Your task to perform on an android device: open app "PUBG MOBILE" (install if not already installed) Image 0: 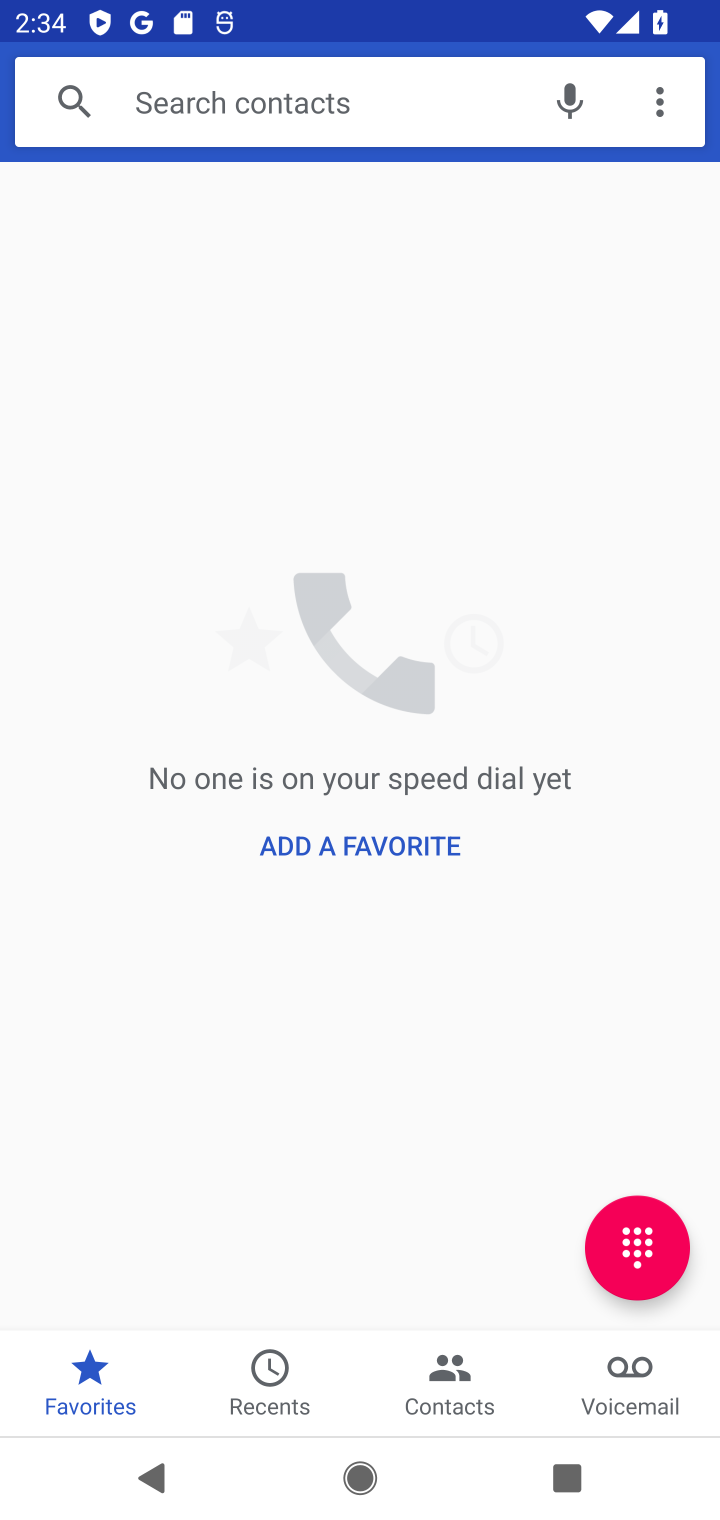
Step 0: press home button
Your task to perform on an android device: open app "PUBG MOBILE" (install if not already installed) Image 1: 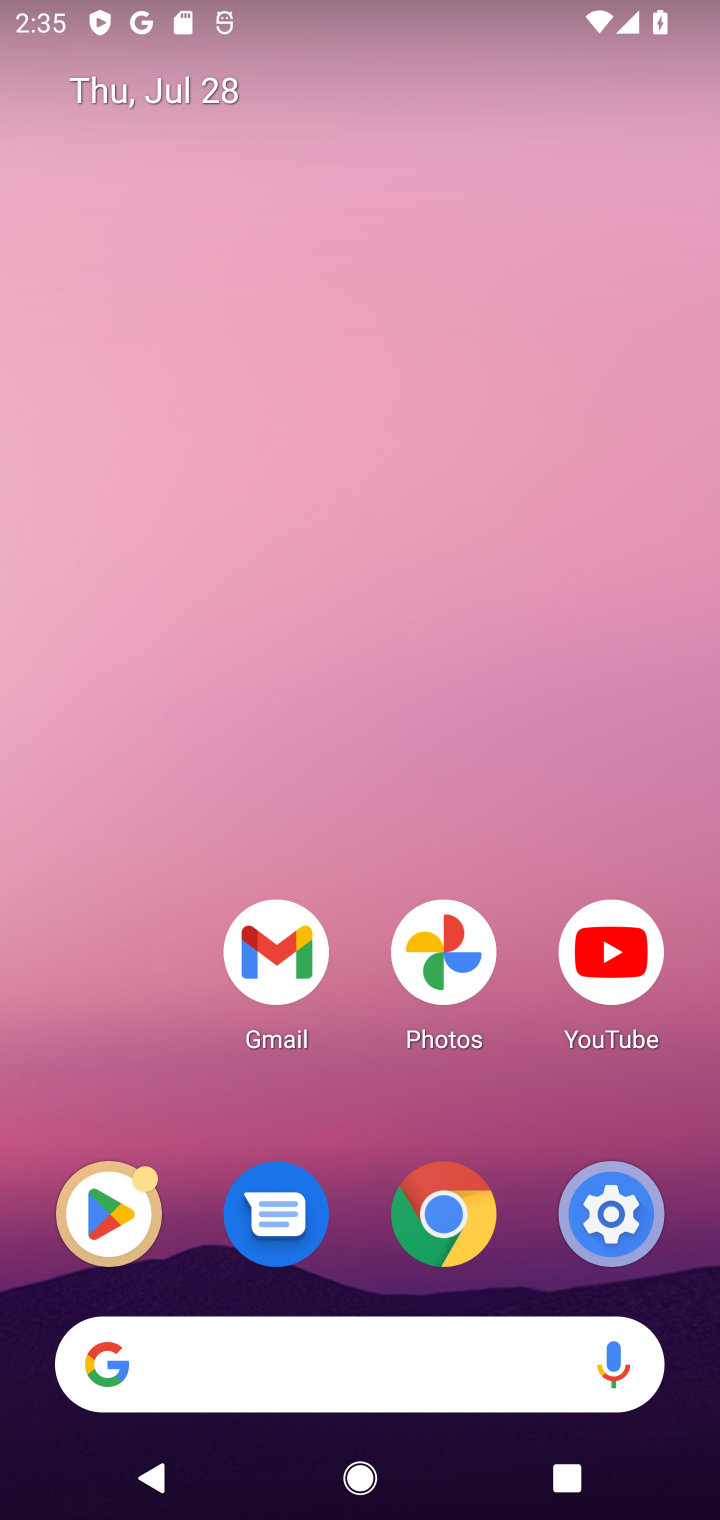
Step 1: click (119, 1190)
Your task to perform on an android device: open app "PUBG MOBILE" (install if not already installed) Image 2: 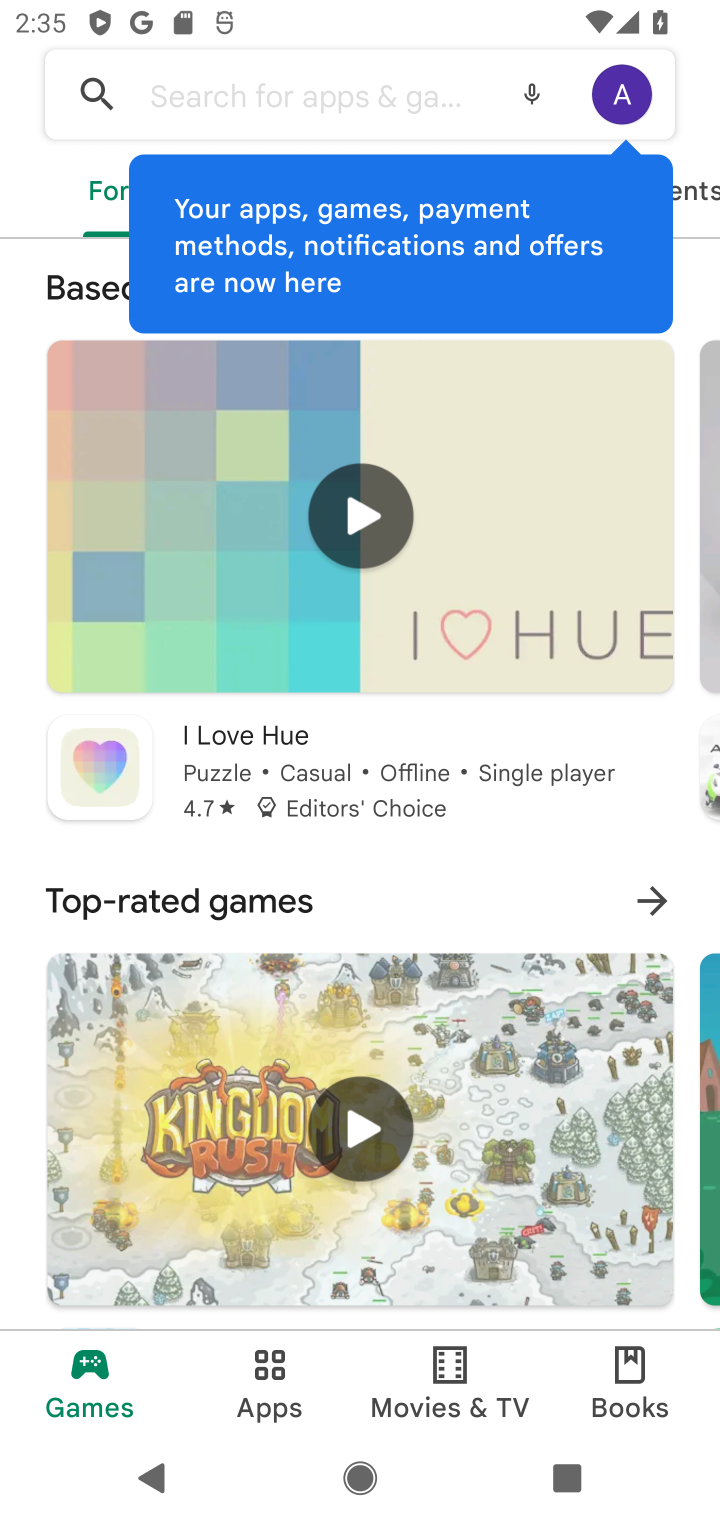
Step 2: click (347, 107)
Your task to perform on an android device: open app "PUBG MOBILE" (install if not already installed) Image 3: 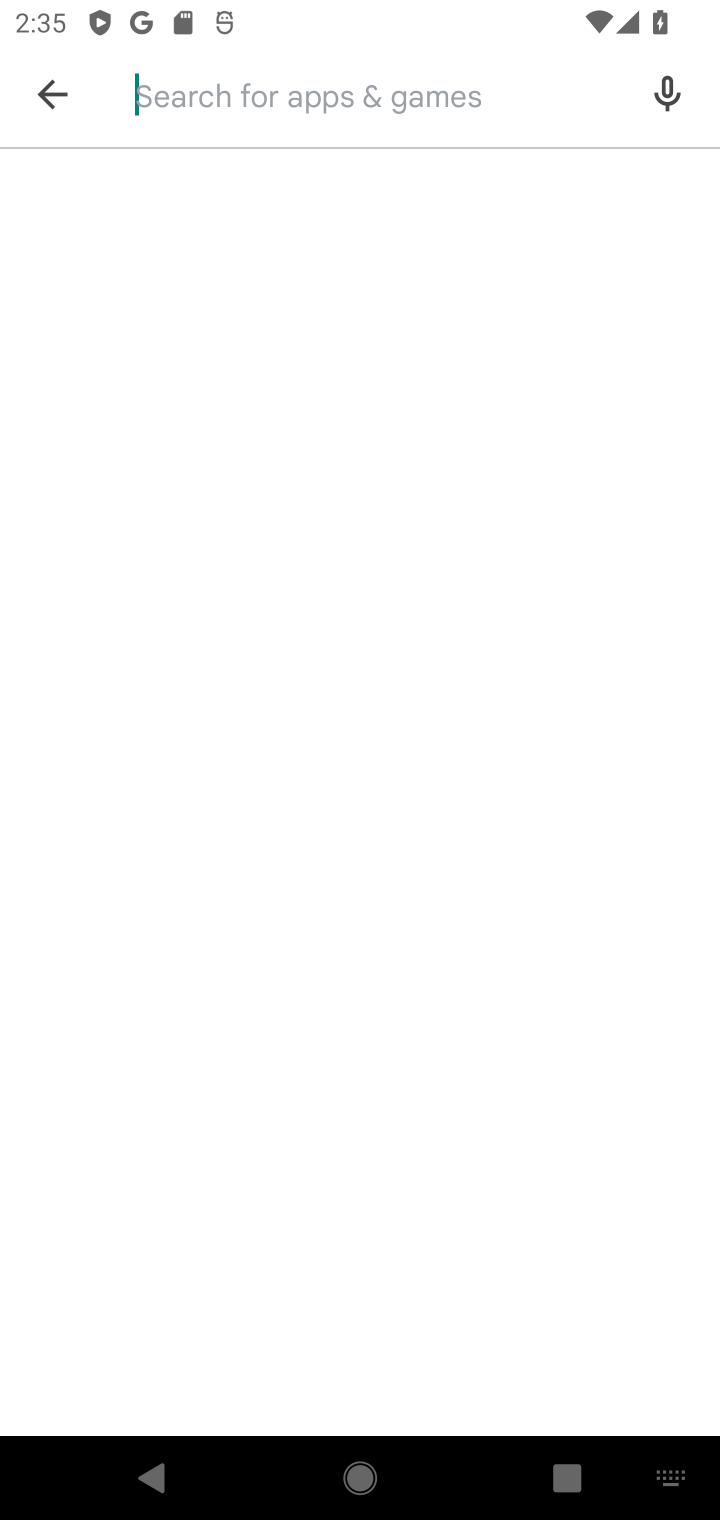
Step 3: type "pubg mobile"
Your task to perform on an android device: open app "PUBG MOBILE" (install if not already installed) Image 4: 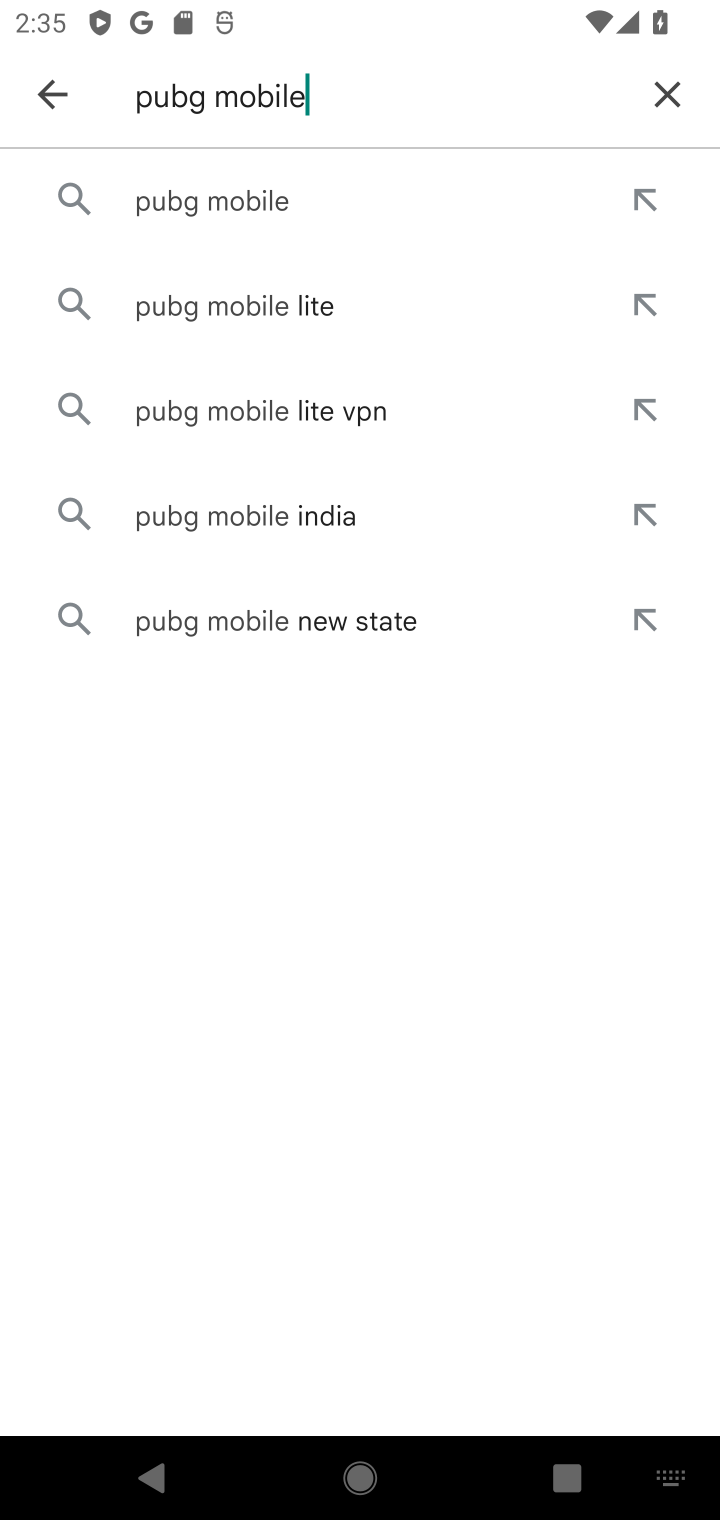
Step 4: click (273, 205)
Your task to perform on an android device: open app "PUBG MOBILE" (install if not already installed) Image 5: 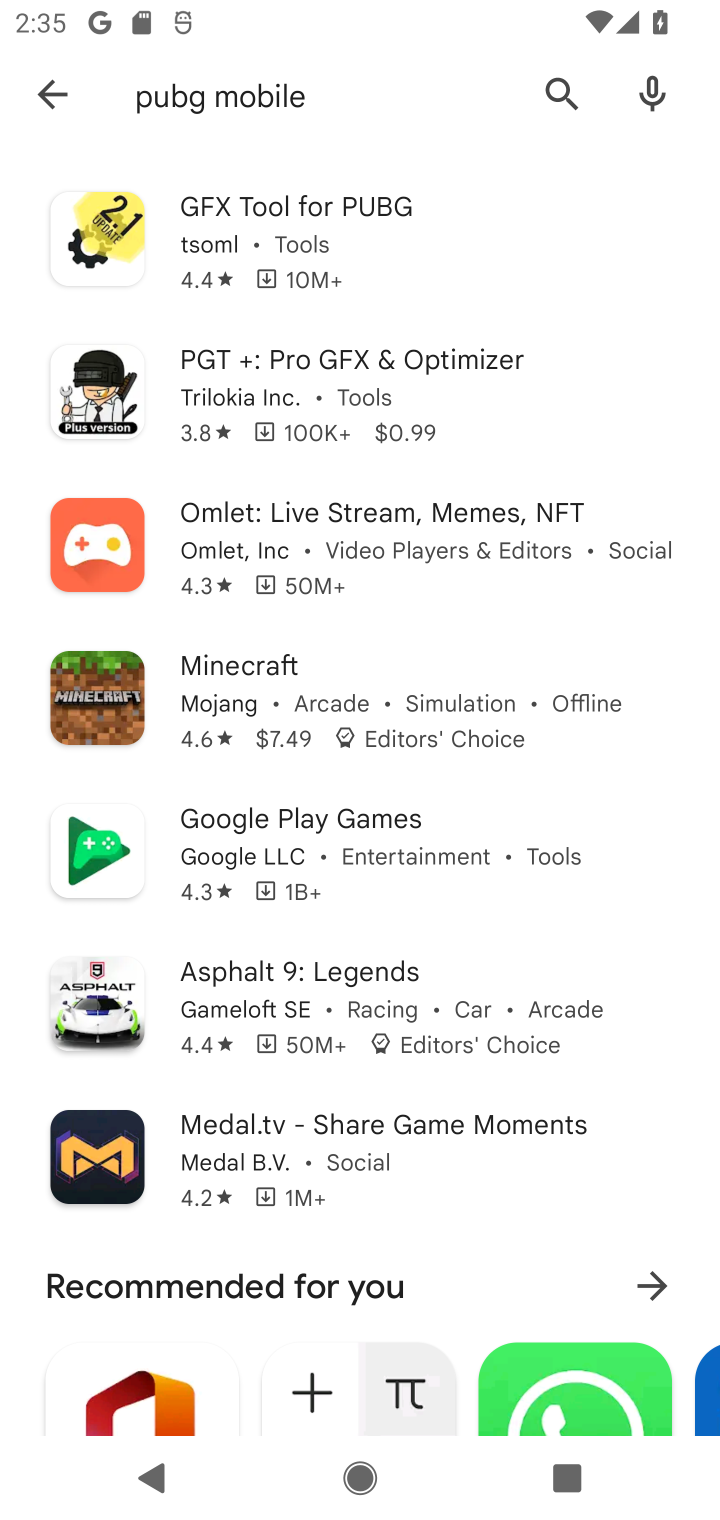
Step 5: drag from (443, 635) to (494, 442)
Your task to perform on an android device: open app "PUBG MOBILE" (install if not already installed) Image 6: 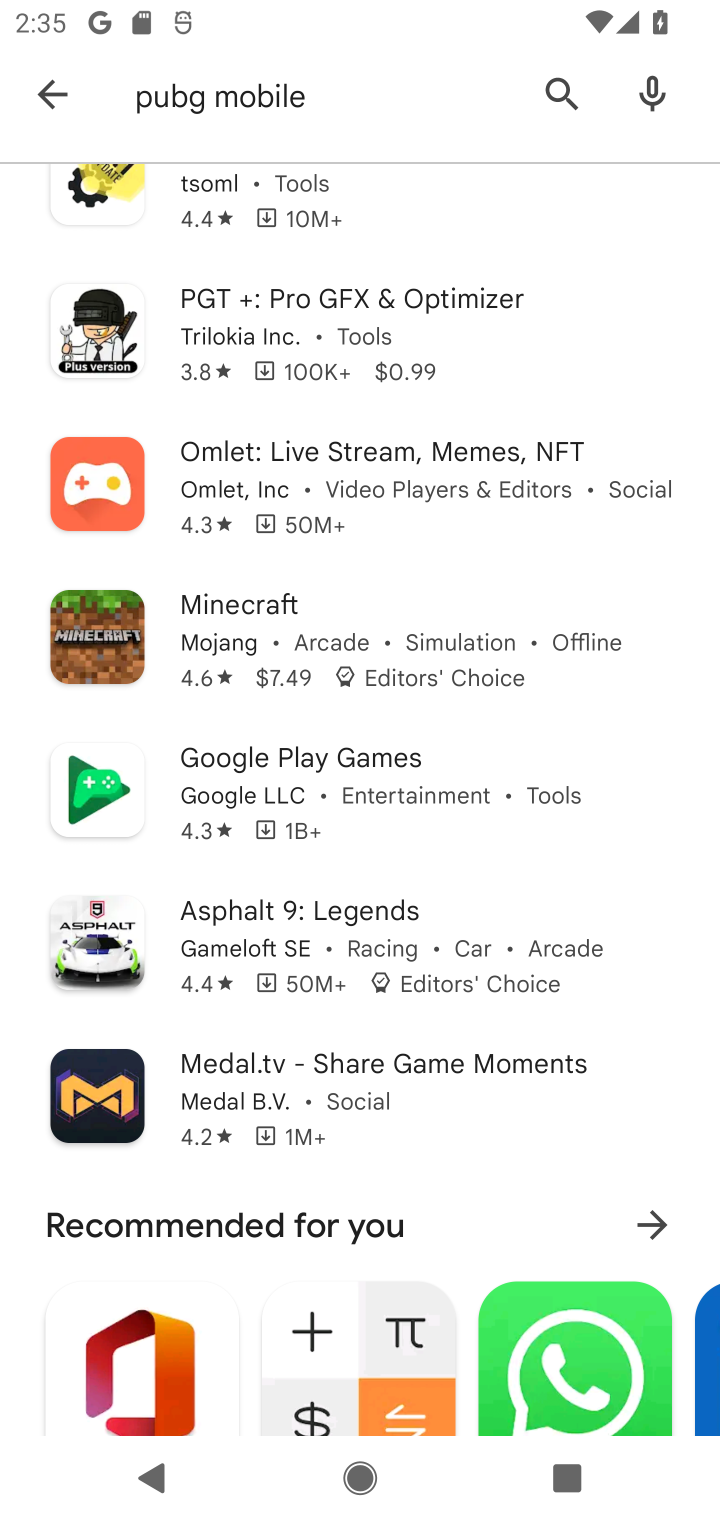
Step 6: drag from (354, 267) to (482, 860)
Your task to perform on an android device: open app "PUBG MOBILE" (install if not already installed) Image 7: 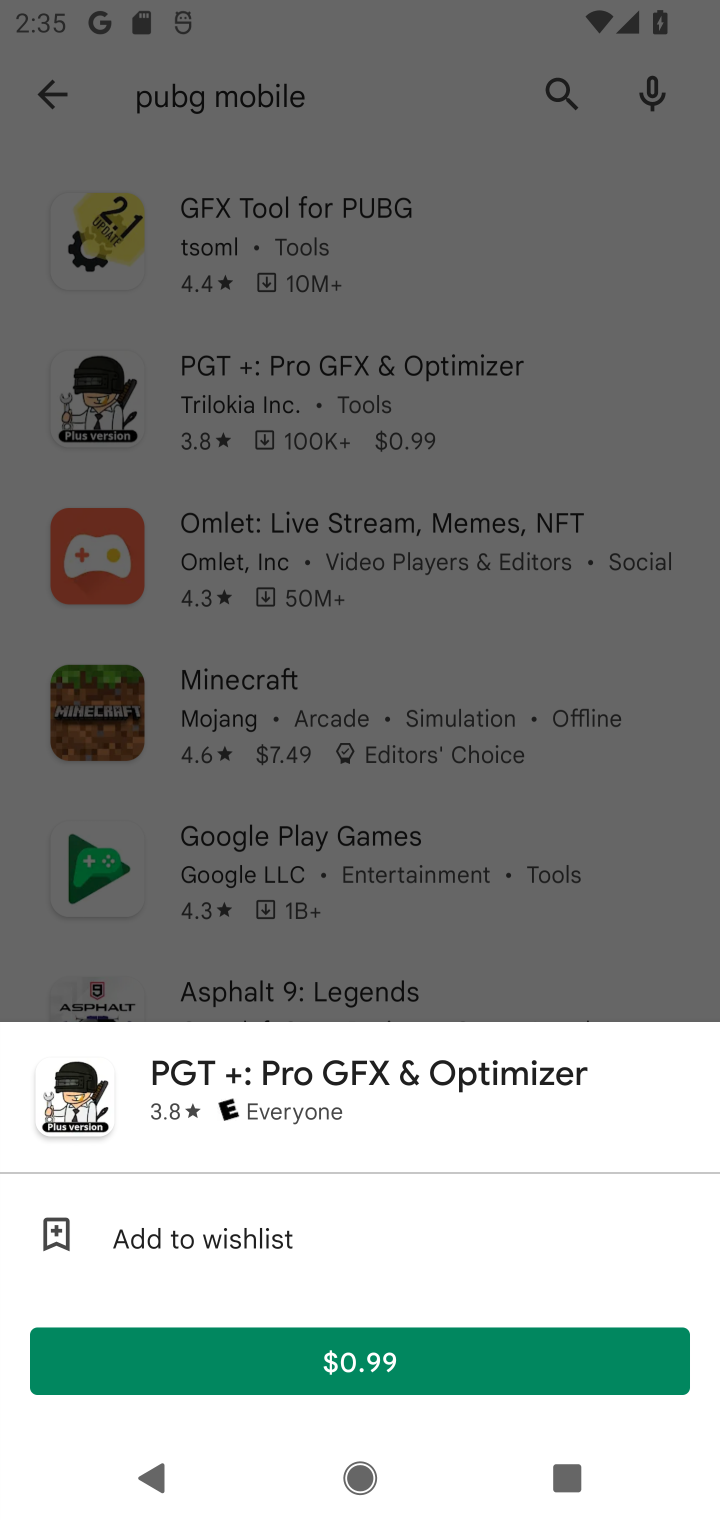
Step 7: click (362, 613)
Your task to perform on an android device: open app "PUBG MOBILE" (install if not already installed) Image 8: 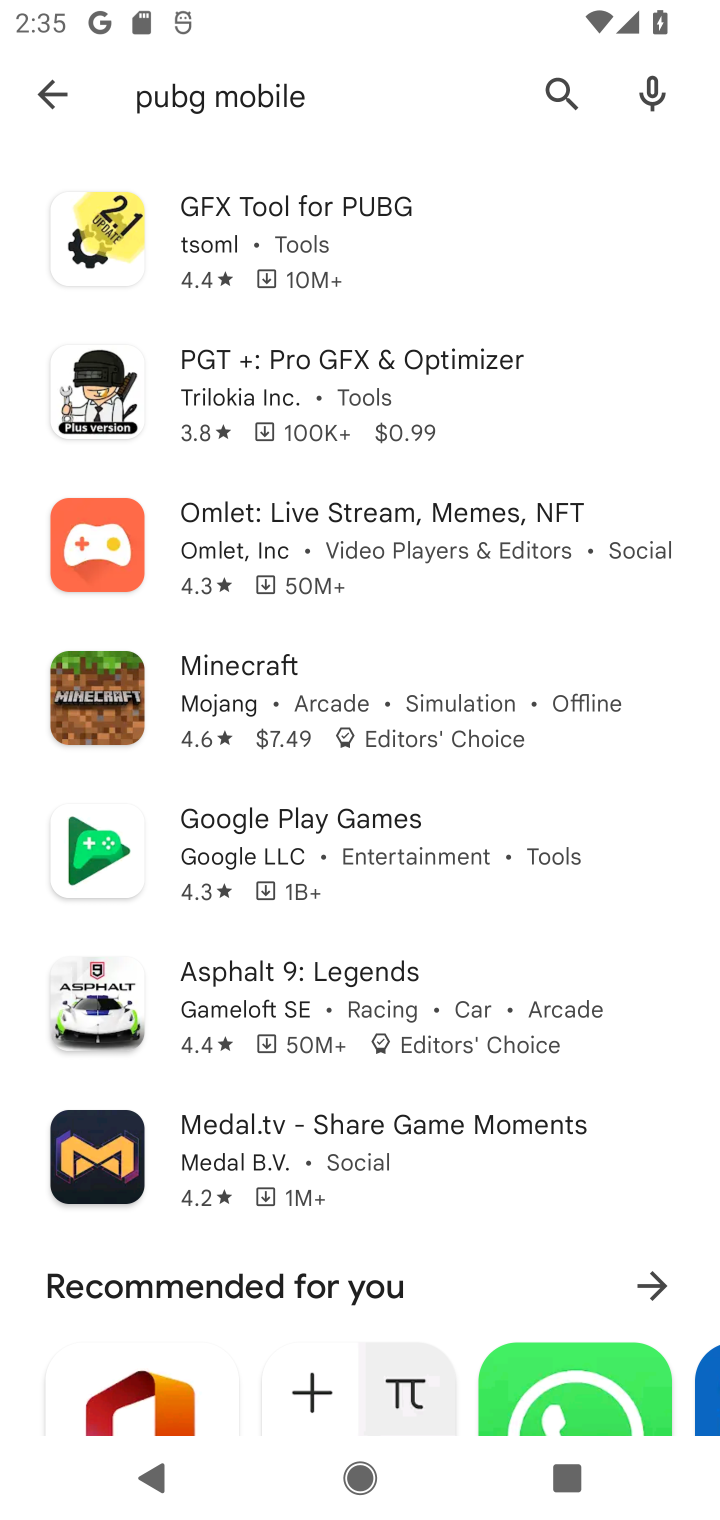
Step 8: click (569, 89)
Your task to perform on an android device: open app "PUBG MOBILE" (install if not already installed) Image 9: 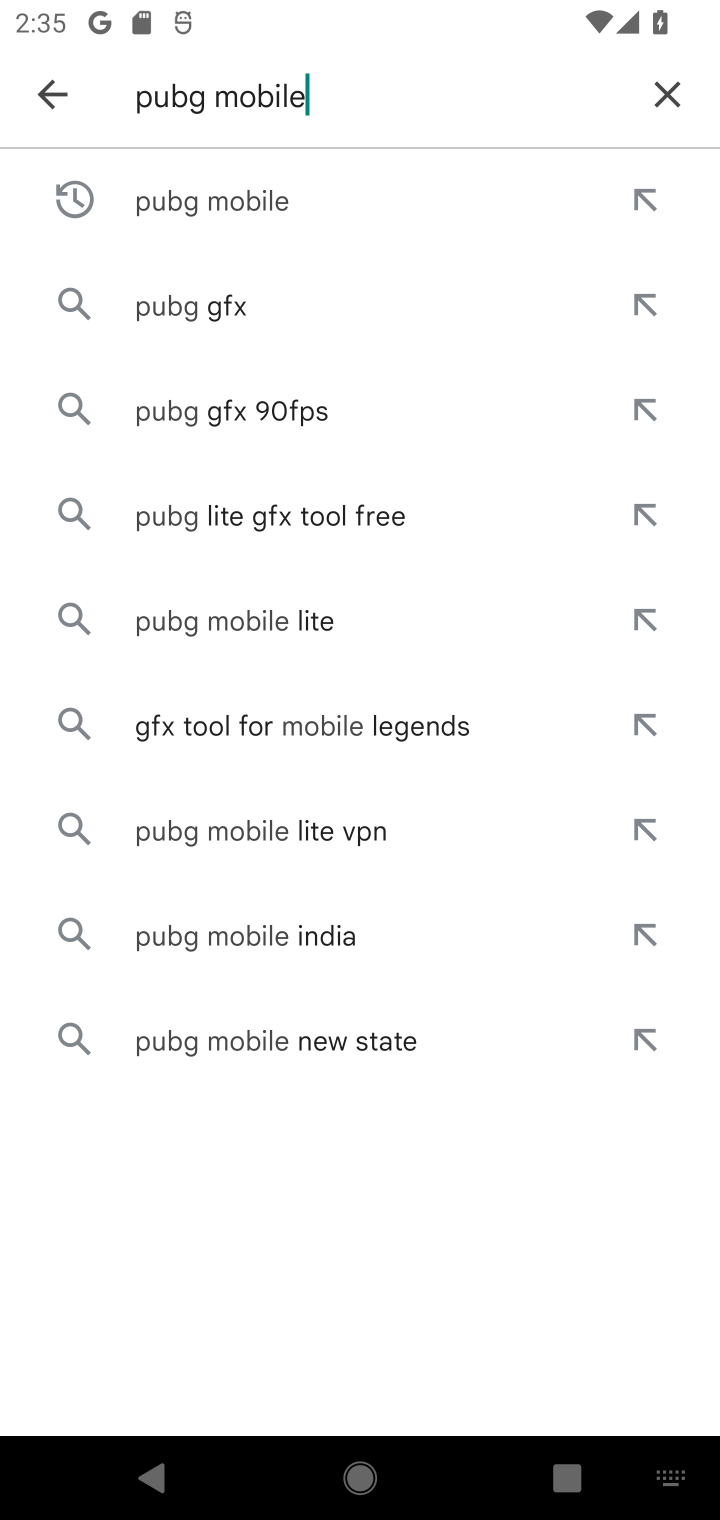
Step 9: click (691, 88)
Your task to perform on an android device: open app "PUBG MOBILE" (install if not already installed) Image 10: 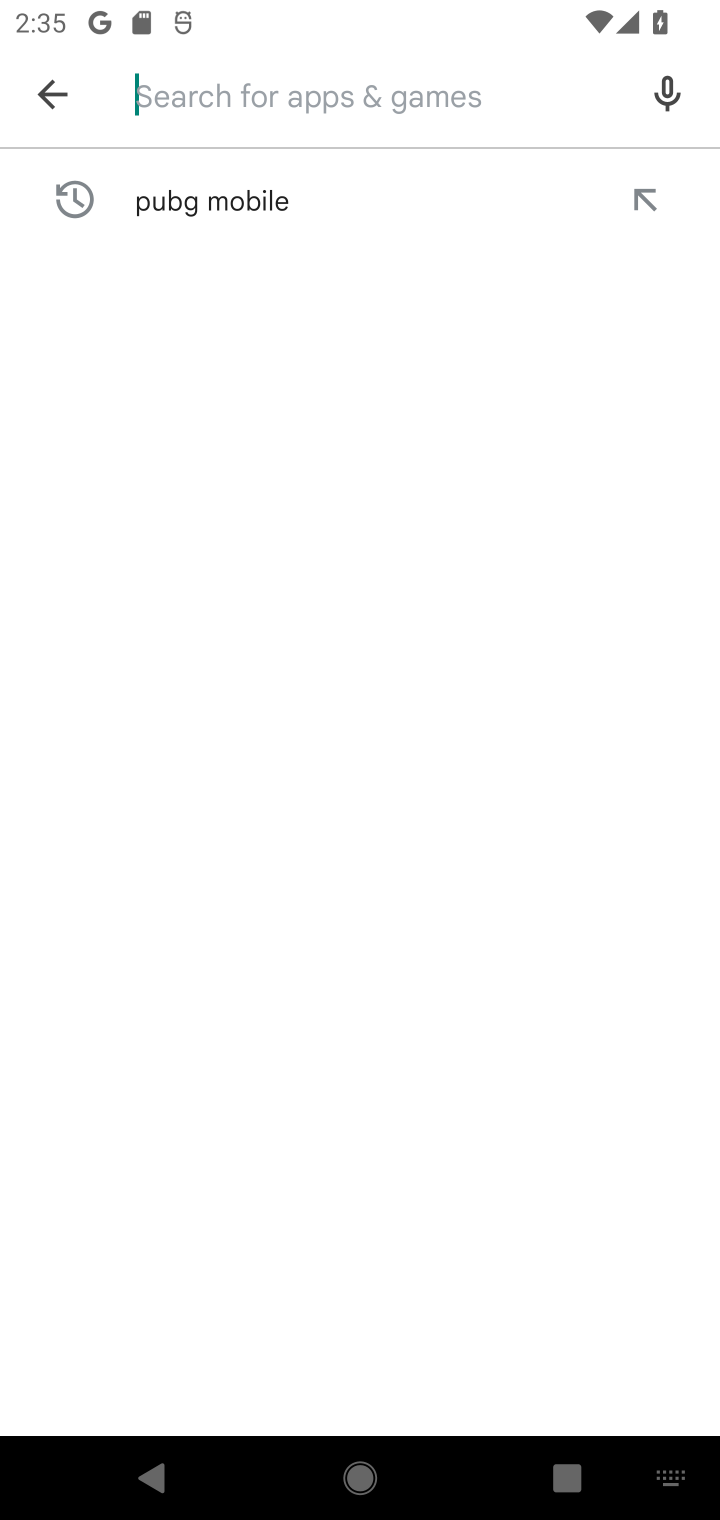
Step 10: type "pubg"
Your task to perform on an android device: open app "PUBG MOBILE" (install if not already installed) Image 11: 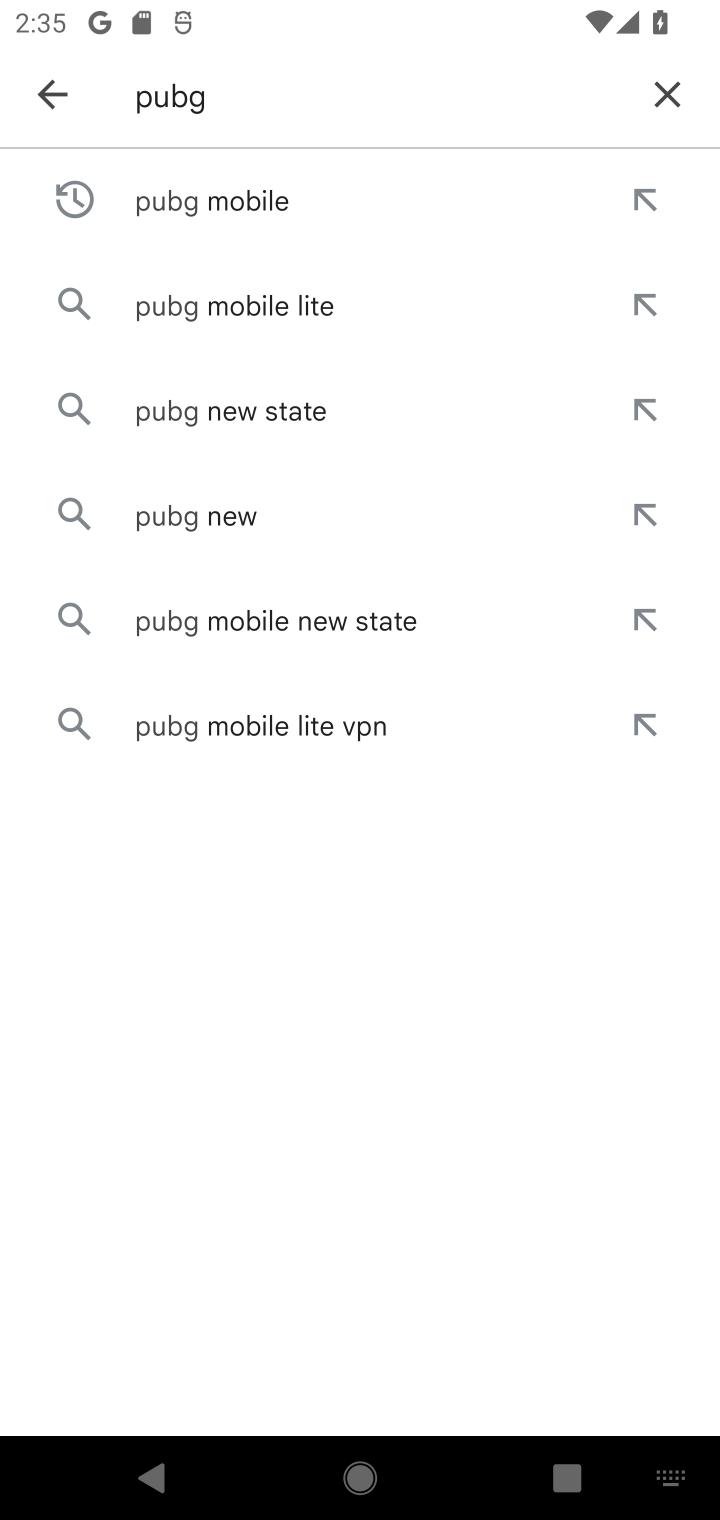
Step 11: press enter
Your task to perform on an android device: open app "PUBG MOBILE" (install if not already installed) Image 12: 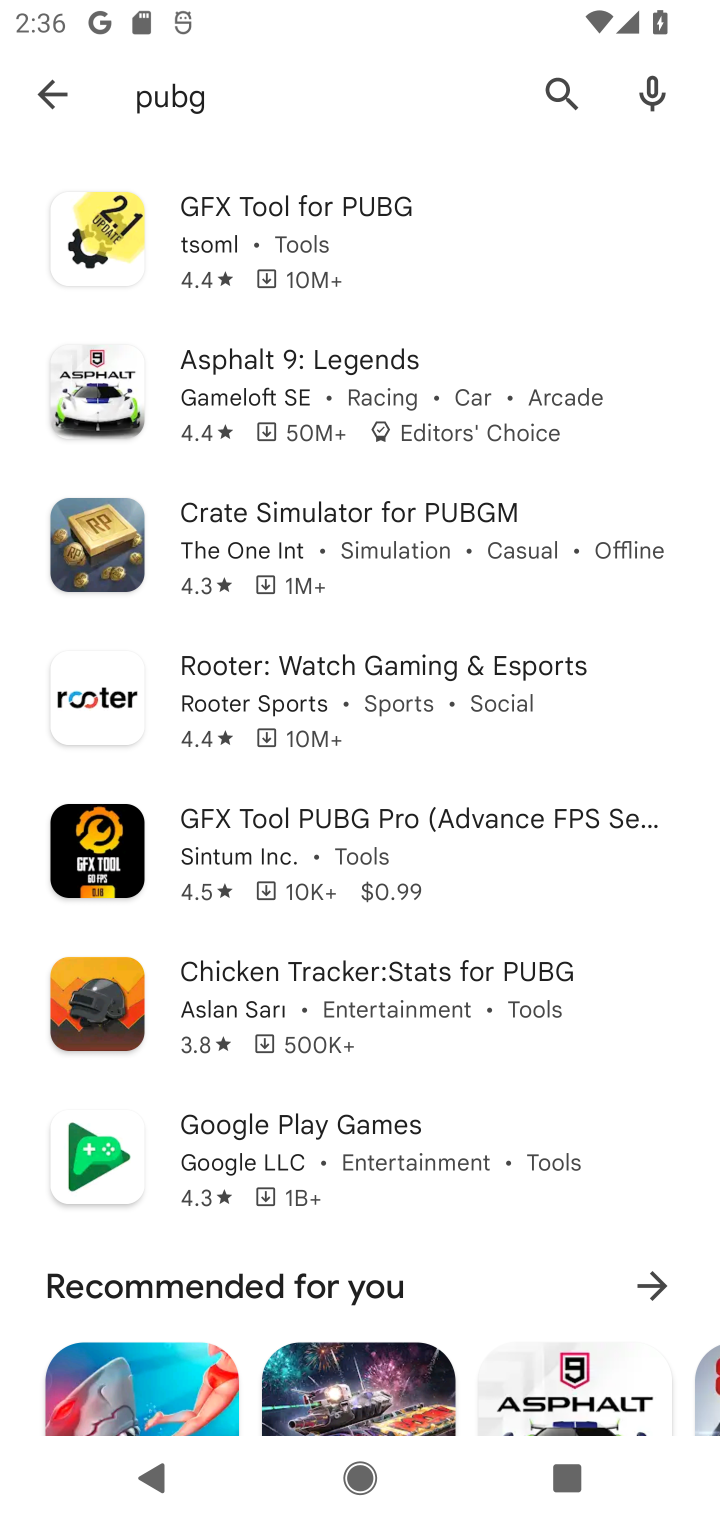
Step 12: task complete